Your task to perform on an android device: View the shopping cart on costco. Search for logitech g pro on costco, select the first entry, add it to the cart, then select checkout. Image 0: 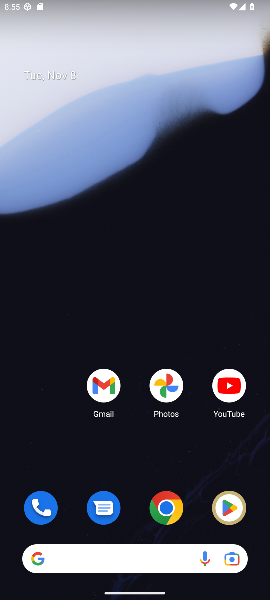
Step 0: click (163, 510)
Your task to perform on an android device: View the shopping cart on costco. Search for logitech g pro on costco, select the first entry, add it to the cart, then select checkout. Image 1: 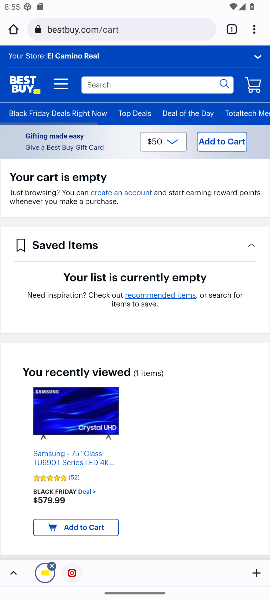
Step 1: click (80, 24)
Your task to perform on an android device: View the shopping cart on costco. Search for logitech g pro on costco, select the first entry, add it to the cart, then select checkout. Image 2: 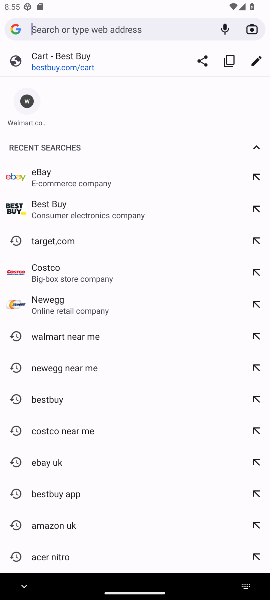
Step 2: click (47, 269)
Your task to perform on an android device: View the shopping cart on costco. Search for logitech g pro on costco, select the first entry, add it to the cart, then select checkout. Image 3: 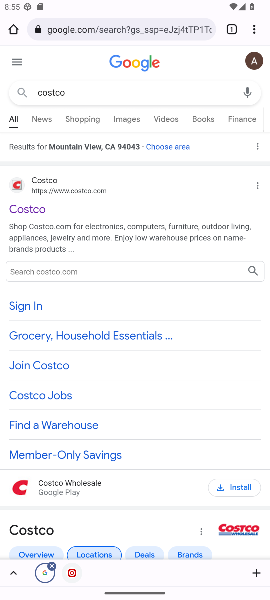
Step 3: click (33, 211)
Your task to perform on an android device: View the shopping cart on costco. Search for logitech g pro on costco, select the first entry, add it to the cart, then select checkout. Image 4: 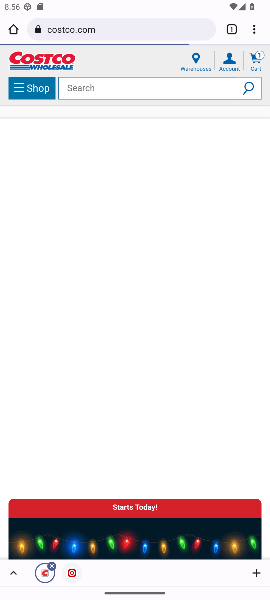
Step 4: click (87, 89)
Your task to perform on an android device: View the shopping cart on costco. Search for logitech g pro on costco, select the first entry, add it to the cart, then select checkout. Image 5: 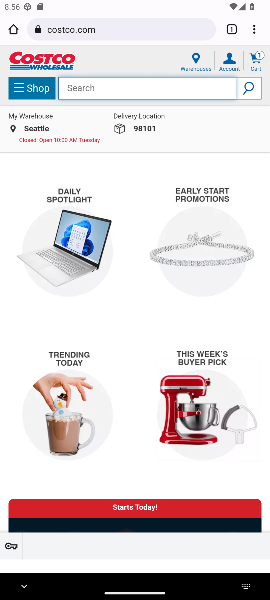
Step 5: type "logitech g pro"
Your task to perform on an android device: View the shopping cart on costco. Search for logitech g pro on costco, select the first entry, add it to the cart, then select checkout. Image 6: 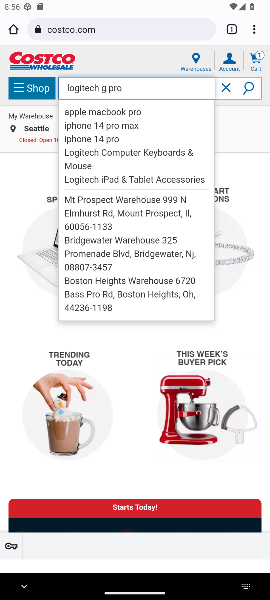
Step 6: click (94, 156)
Your task to perform on an android device: View the shopping cart on costco. Search for logitech g pro on costco, select the first entry, add it to the cart, then select checkout. Image 7: 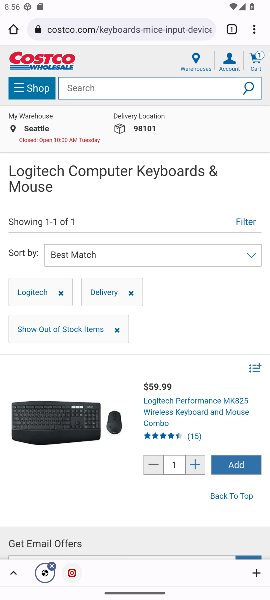
Step 7: drag from (78, 470) to (104, 203)
Your task to perform on an android device: View the shopping cart on costco. Search for logitech g pro on costco, select the first entry, add it to the cart, then select checkout. Image 8: 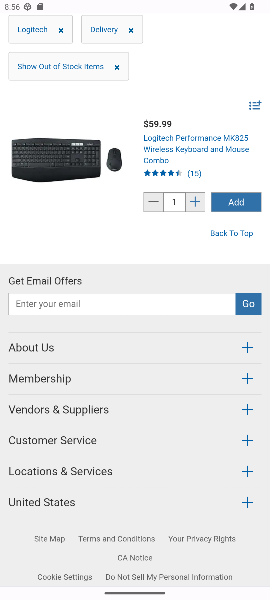
Step 8: click (169, 136)
Your task to perform on an android device: View the shopping cart on costco. Search for logitech g pro on costco, select the first entry, add it to the cart, then select checkout. Image 9: 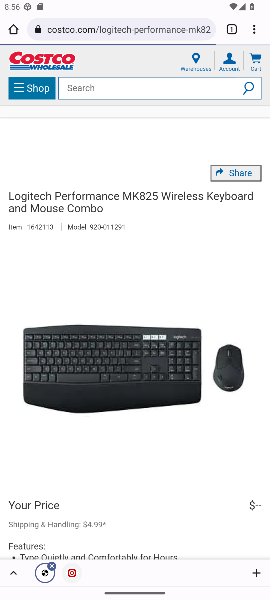
Step 9: drag from (113, 460) to (109, 72)
Your task to perform on an android device: View the shopping cart on costco. Search for logitech g pro on costco, select the first entry, add it to the cart, then select checkout. Image 10: 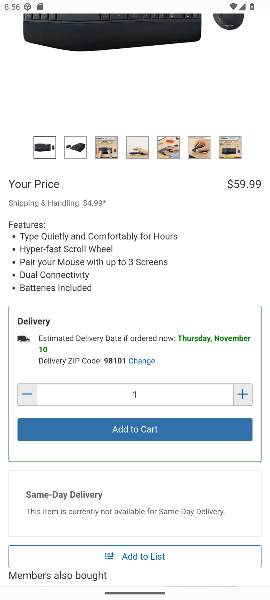
Step 10: click (133, 428)
Your task to perform on an android device: View the shopping cart on costco. Search for logitech g pro on costco, select the first entry, add it to the cart, then select checkout. Image 11: 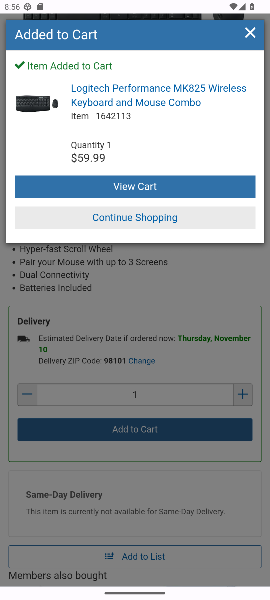
Step 11: click (113, 191)
Your task to perform on an android device: View the shopping cart on costco. Search for logitech g pro on costco, select the first entry, add it to the cart, then select checkout. Image 12: 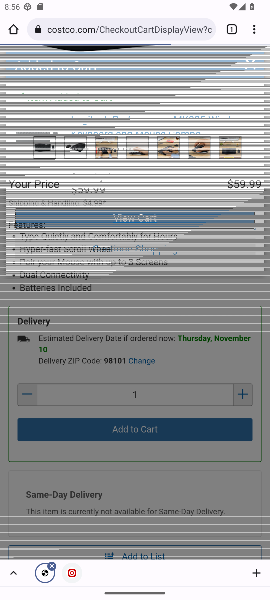
Step 12: click (138, 220)
Your task to perform on an android device: View the shopping cart on costco. Search for logitech g pro on costco, select the first entry, add it to the cart, then select checkout. Image 13: 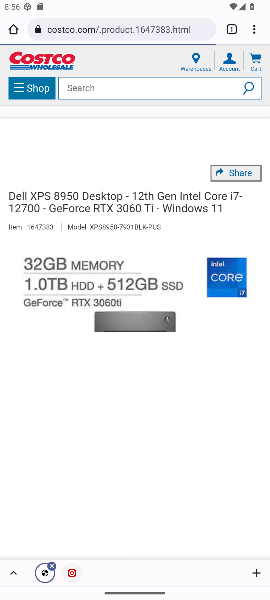
Step 13: drag from (66, 464) to (62, 193)
Your task to perform on an android device: View the shopping cart on costco. Search for logitech g pro on costco, select the first entry, add it to the cart, then select checkout. Image 14: 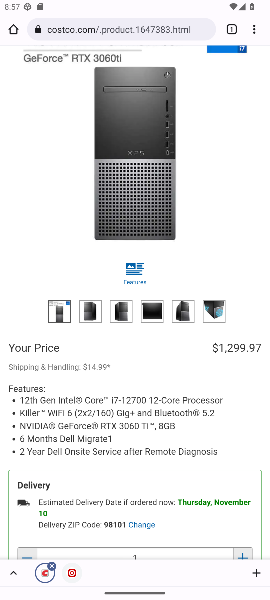
Step 14: drag from (148, 414) to (162, 144)
Your task to perform on an android device: View the shopping cart on costco. Search for logitech g pro on costco, select the first entry, add it to the cart, then select checkout. Image 15: 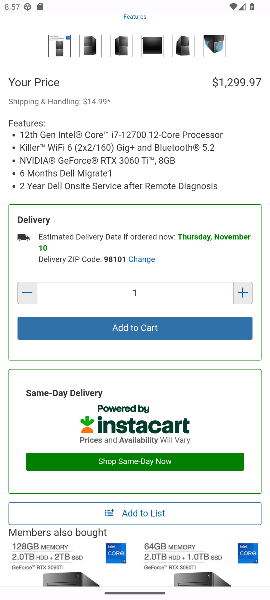
Step 15: click (125, 327)
Your task to perform on an android device: View the shopping cart on costco. Search for logitech g pro on costco, select the first entry, add it to the cart, then select checkout. Image 16: 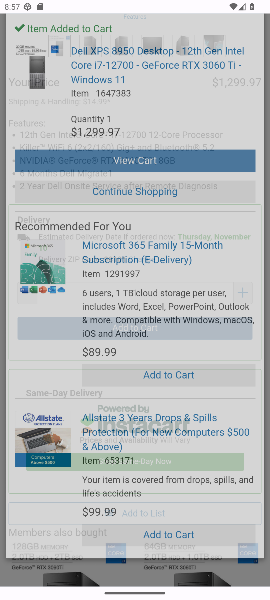
Step 16: click (136, 159)
Your task to perform on an android device: View the shopping cart on costco. Search for logitech g pro on costco, select the first entry, add it to the cart, then select checkout. Image 17: 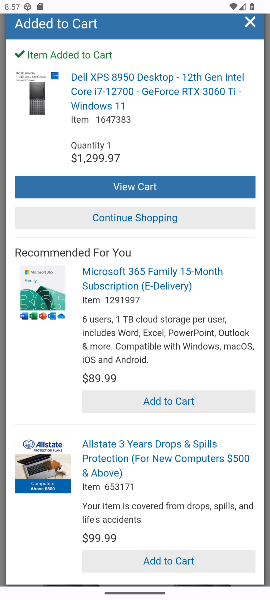
Step 17: click (118, 191)
Your task to perform on an android device: View the shopping cart on costco. Search for logitech g pro on costco, select the first entry, add it to the cart, then select checkout. Image 18: 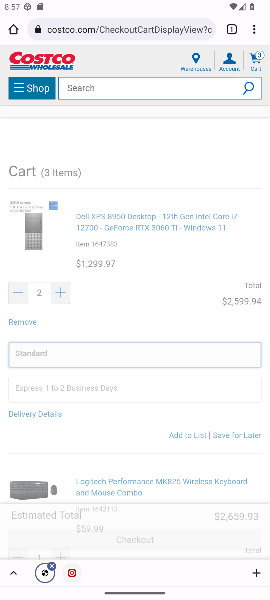
Step 18: click (135, 542)
Your task to perform on an android device: View the shopping cart on costco. Search for logitech g pro on costco, select the first entry, add it to the cart, then select checkout. Image 19: 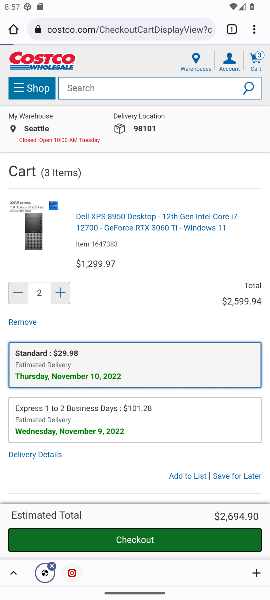
Step 19: click (135, 542)
Your task to perform on an android device: View the shopping cart on costco. Search for logitech g pro on costco, select the first entry, add it to the cart, then select checkout. Image 20: 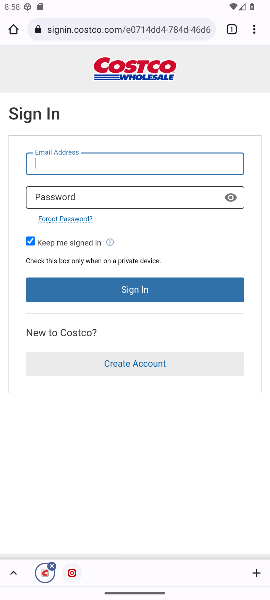
Step 20: task complete